Your task to perform on an android device: turn on location history Image 0: 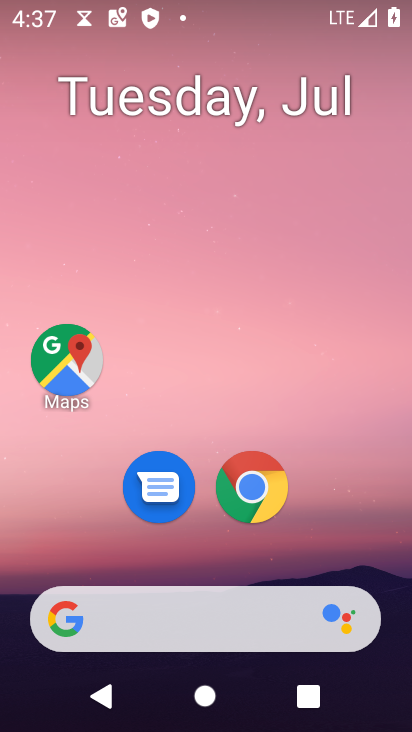
Step 0: drag from (143, 541) to (191, 31)
Your task to perform on an android device: turn on location history Image 1: 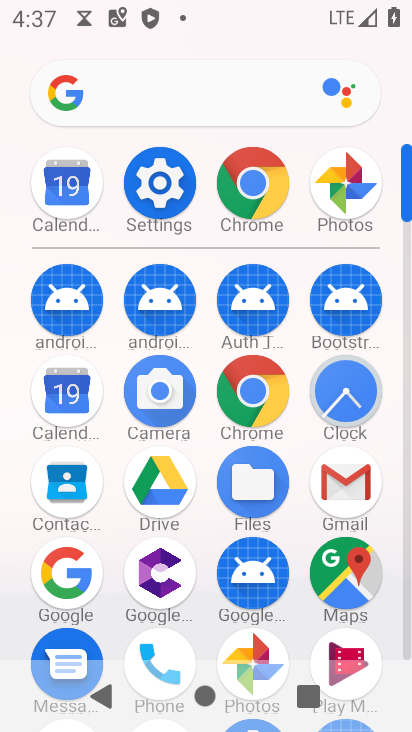
Step 1: click (152, 183)
Your task to perform on an android device: turn on location history Image 2: 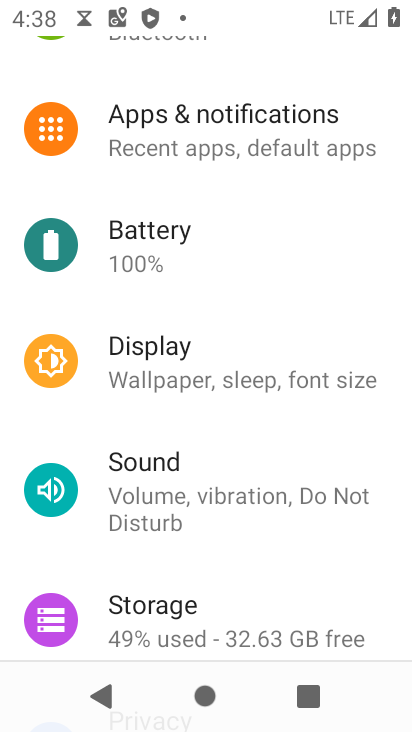
Step 2: drag from (201, 601) to (247, 60)
Your task to perform on an android device: turn on location history Image 3: 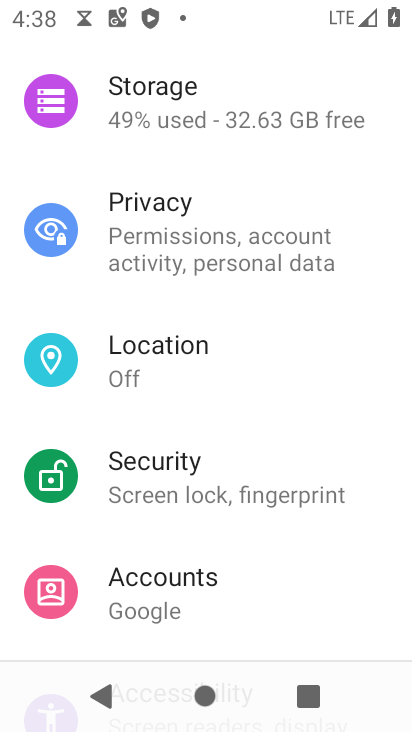
Step 3: click (145, 359)
Your task to perform on an android device: turn on location history Image 4: 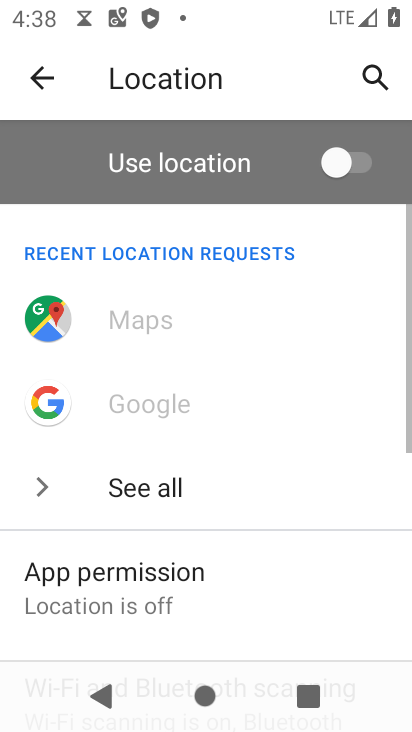
Step 4: drag from (138, 586) to (138, 90)
Your task to perform on an android device: turn on location history Image 5: 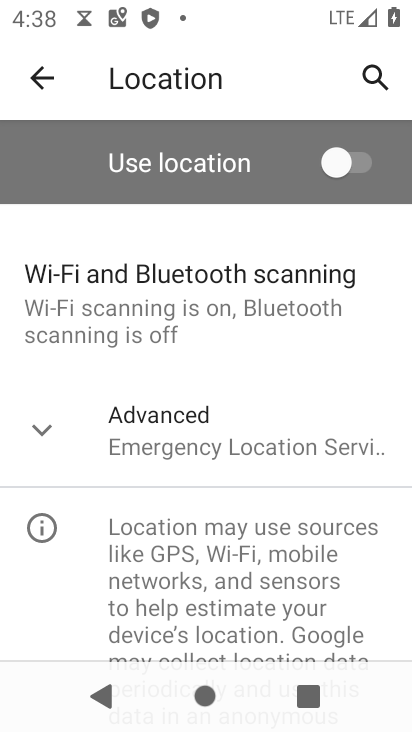
Step 5: click (196, 428)
Your task to perform on an android device: turn on location history Image 6: 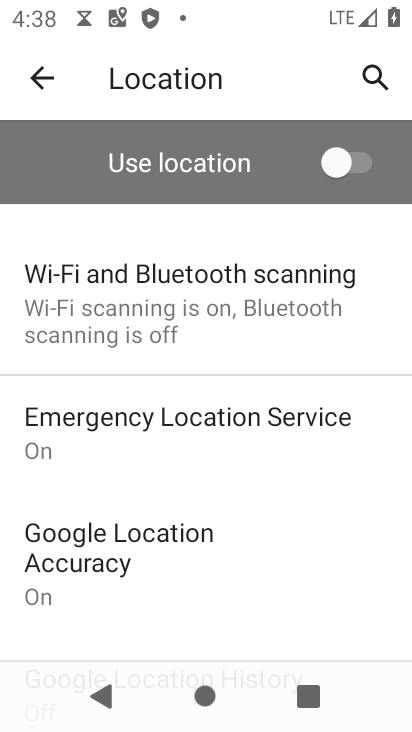
Step 6: drag from (174, 596) to (255, 140)
Your task to perform on an android device: turn on location history Image 7: 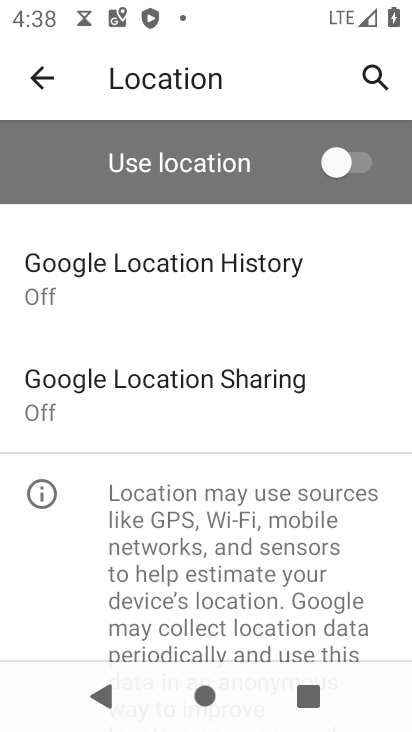
Step 7: click (192, 282)
Your task to perform on an android device: turn on location history Image 8: 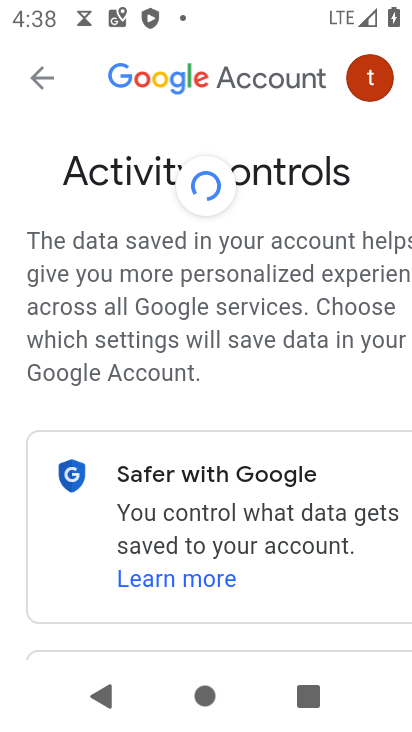
Step 8: drag from (179, 560) to (257, 63)
Your task to perform on an android device: turn on location history Image 9: 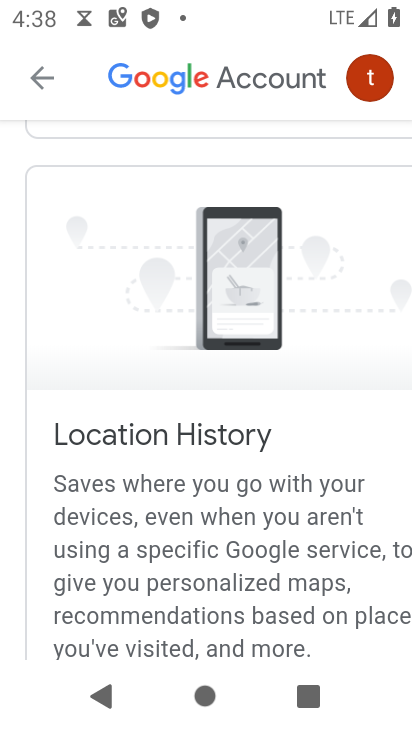
Step 9: drag from (232, 593) to (258, 294)
Your task to perform on an android device: turn on location history Image 10: 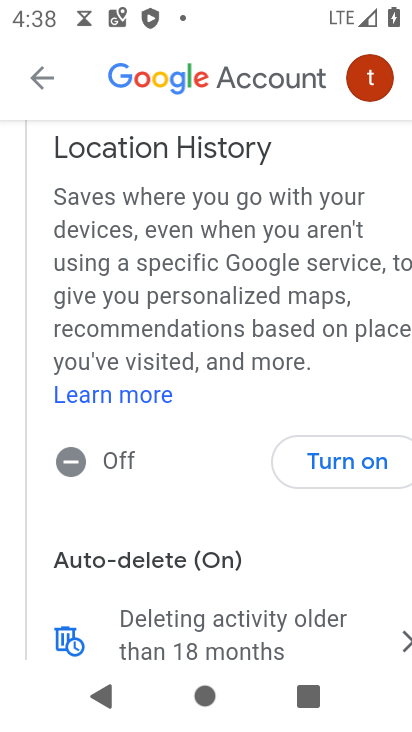
Step 10: click (348, 458)
Your task to perform on an android device: turn on location history Image 11: 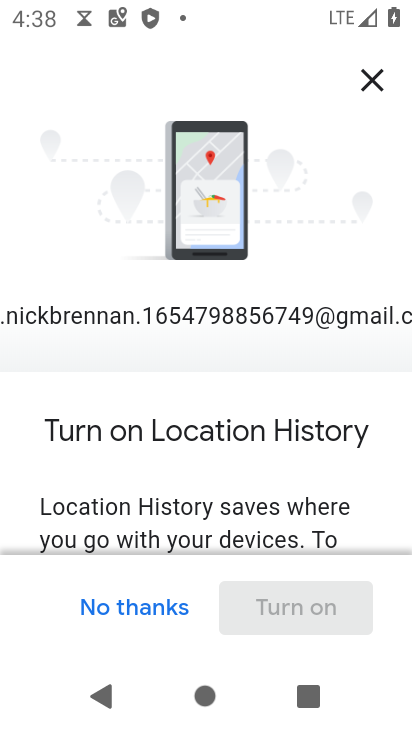
Step 11: drag from (169, 509) to (251, 1)
Your task to perform on an android device: turn on location history Image 12: 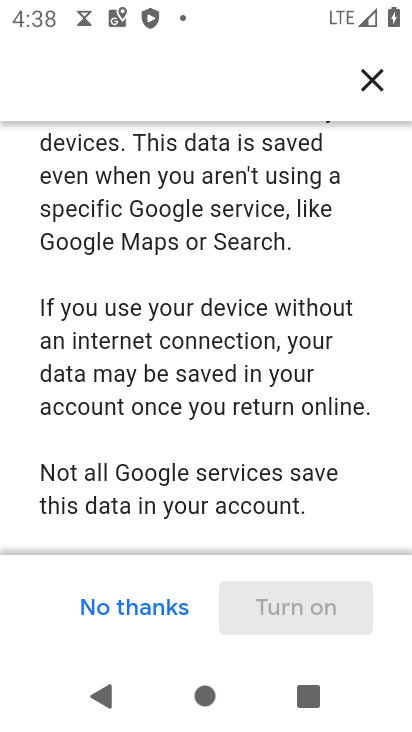
Step 12: drag from (209, 488) to (232, 18)
Your task to perform on an android device: turn on location history Image 13: 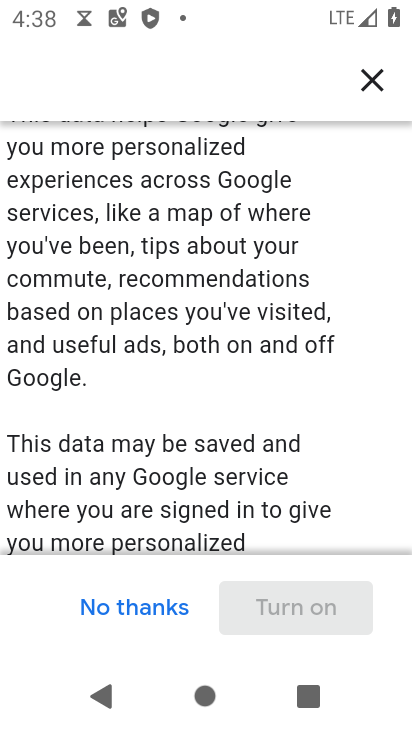
Step 13: drag from (203, 499) to (210, 5)
Your task to perform on an android device: turn on location history Image 14: 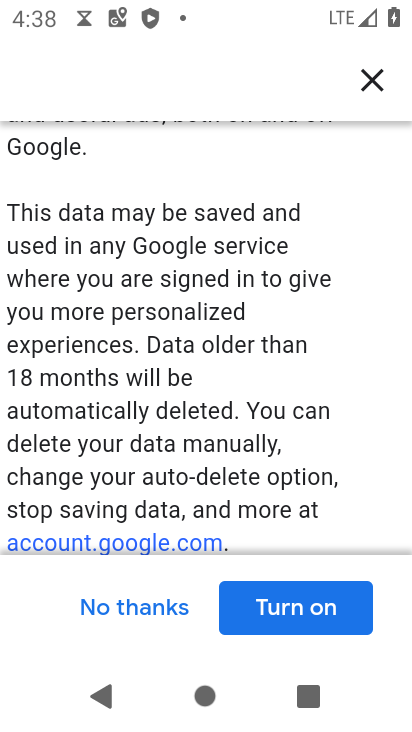
Step 14: click (324, 610)
Your task to perform on an android device: turn on location history Image 15: 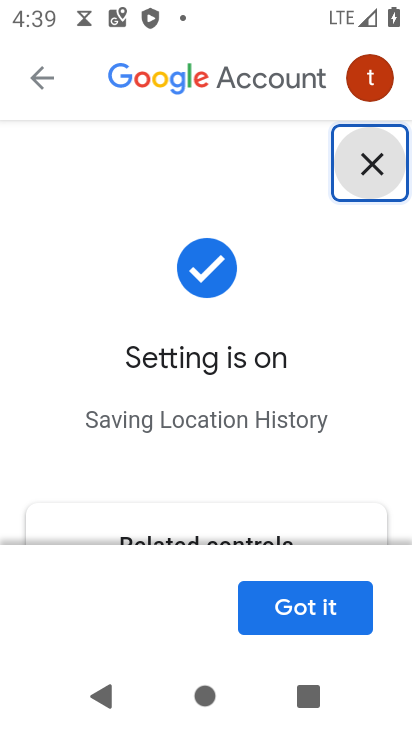
Step 15: click (276, 610)
Your task to perform on an android device: turn on location history Image 16: 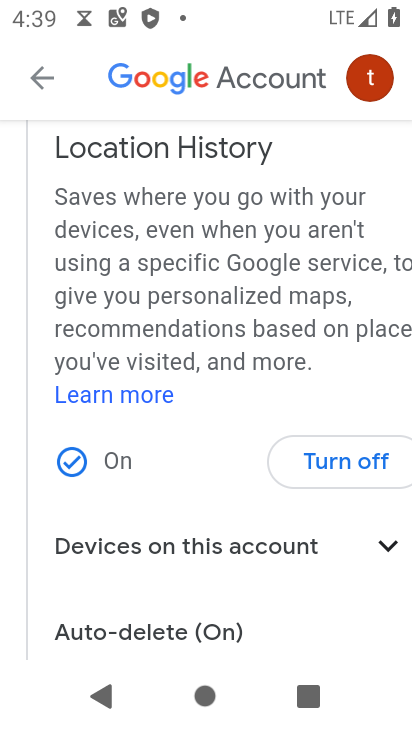
Step 16: task complete